Your task to perform on an android device: Do I have any events tomorrow? Image 0: 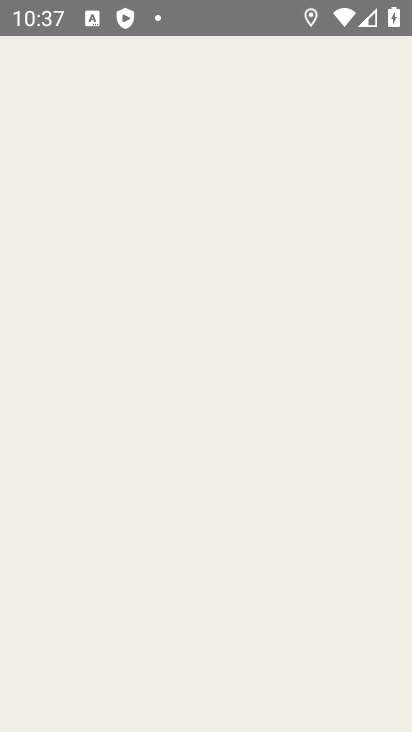
Step 0: click (230, 320)
Your task to perform on an android device: Do I have any events tomorrow? Image 1: 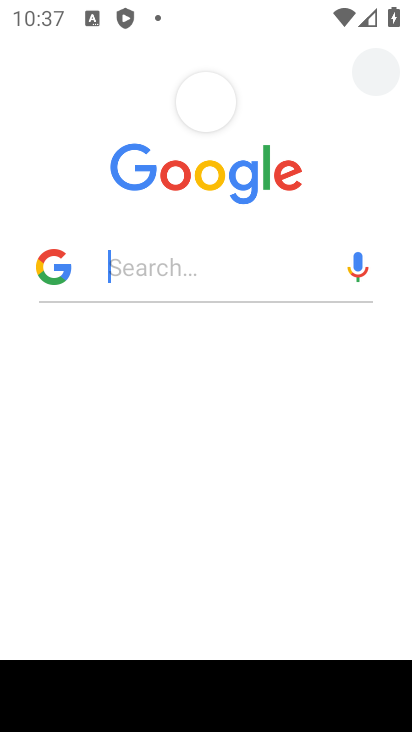
Step 1: press home button
Your task to perform on an android device: Do I have any events tomorrow? Image 2: 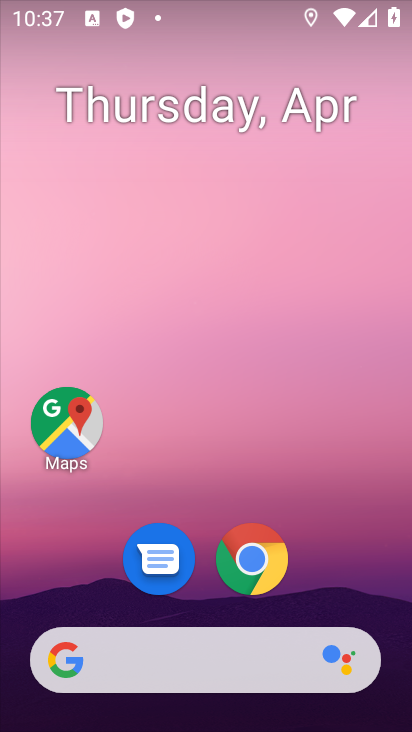
Step 2: drag from (250, 727) to (241, 21)
Your task to perform on an android device: Do I have any events tomorrow? Image 3: 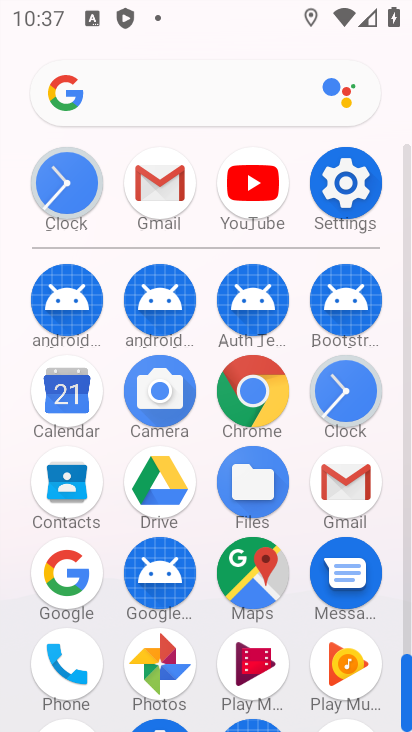
Step 3: click (67, 400)
Your task to perform on an android device: Do I have any events tomorrow? Image 4: 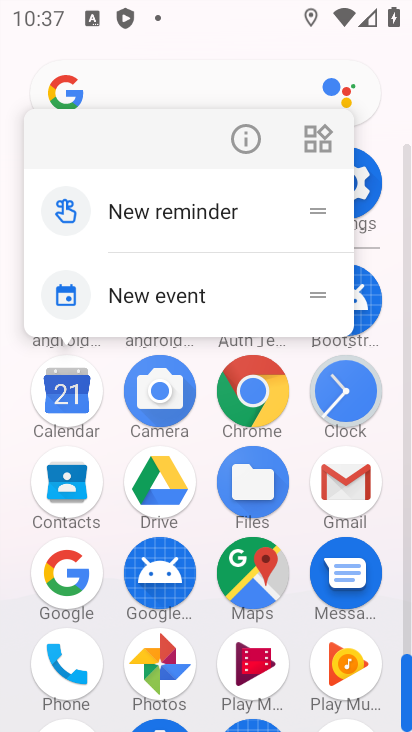
Step 4: click (67, 400)
Your task to perform on an android device: Do I have any events tomorrow? Image 5: 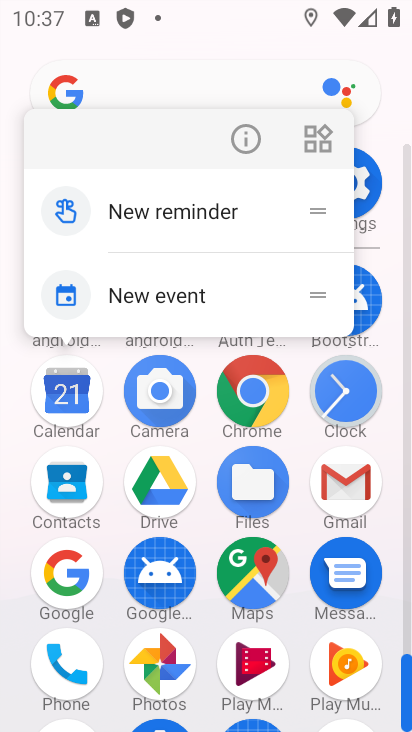
Step 5: click (67, 400)
Your task to perform on an android device: Do I have any events tomorrow? Image 6: 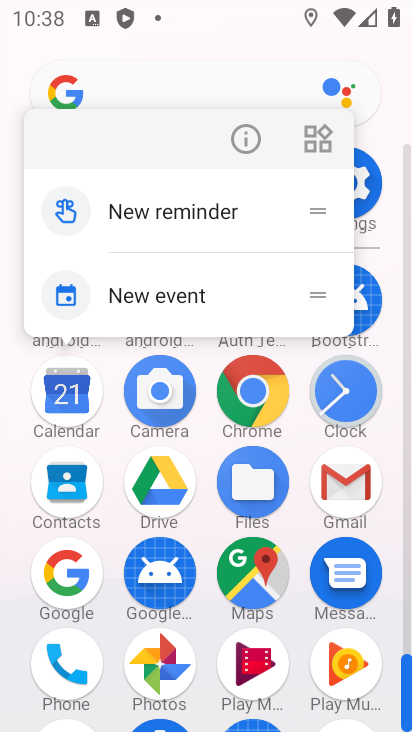
Step 6: click (67, 400)
Your task to perform on an android device: Do I have any events tomorrow? Image 7: 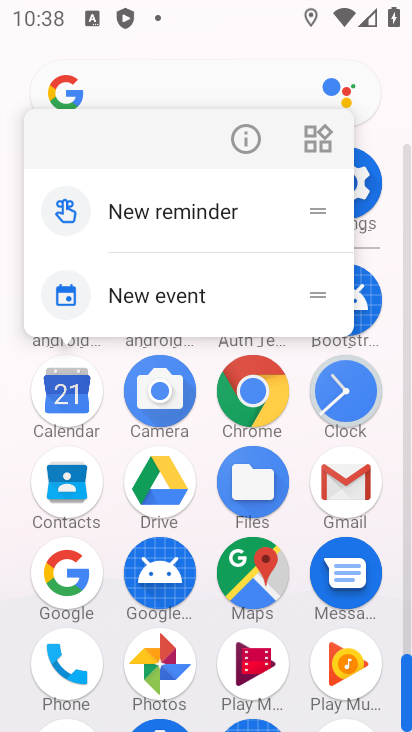
Step 7: click (67, 400)
Your task to perform on an android device: Do I have any events tomorrow? Image 8: 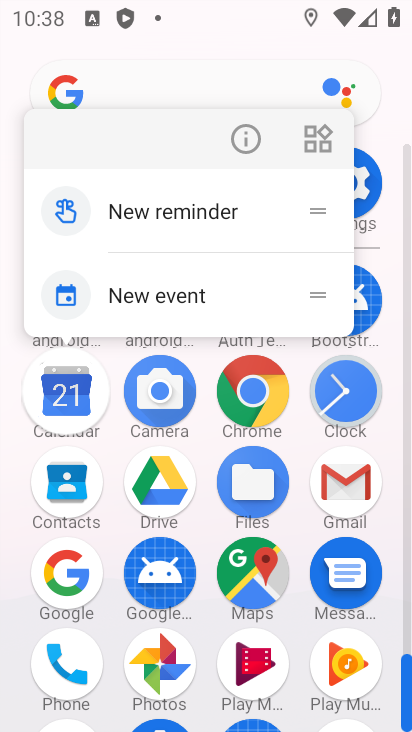
Step 8: click (67, 400)
Your task to perform on an android device: Do I have any events tomorrow? Image 9: 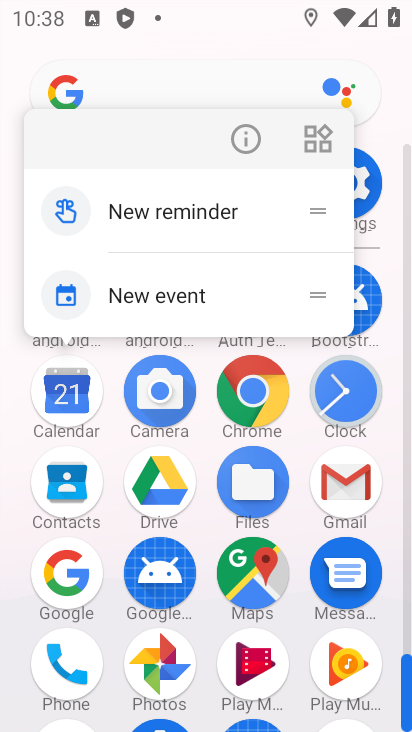
Step 9: click (75, 402)
Your task to perform on an android device: Do I have any events tomorrow? Image 10: 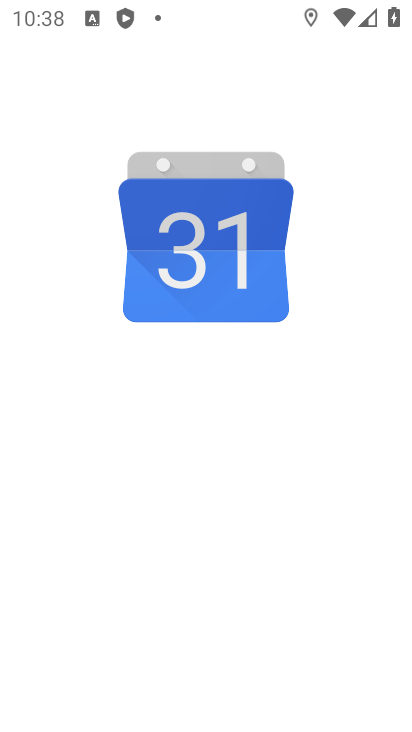
Step 10: click (75, 402)
Your task to perform on an android device: Do I have any events tomorrow? Image 11: 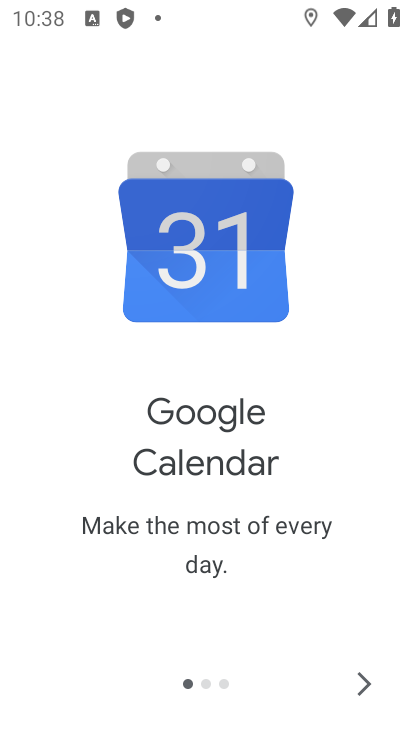
Step 11: click (369, 671)
Your task to perform on an android device: Do I have any events tomorrow? Image 12: 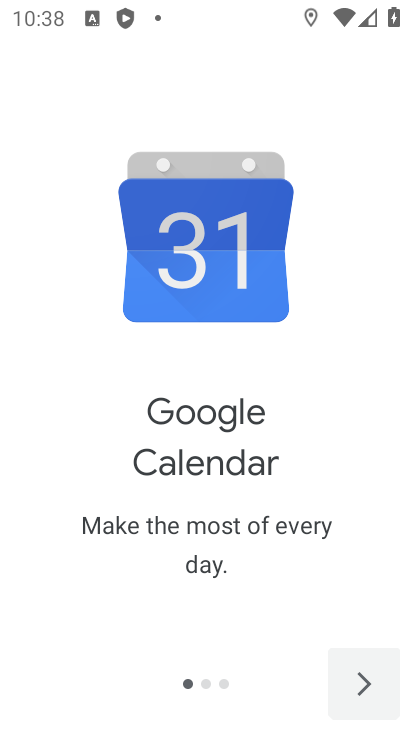
Step 12: click (369, 671)
Your task to perform on an android device: Do I have any events tomorrow? Image 13: 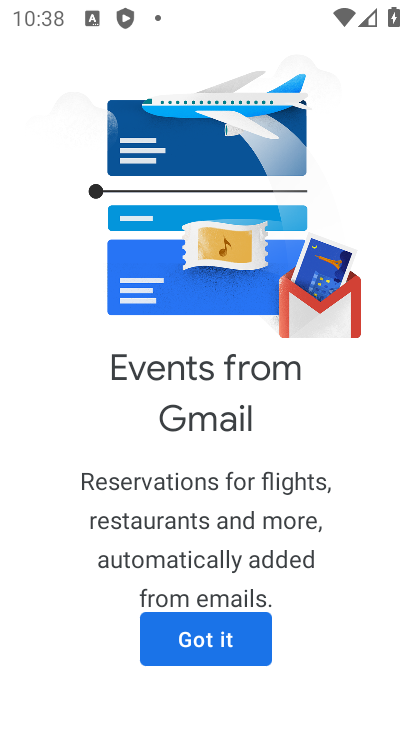
Step 13: click (187, 640)
Your task to perform on an android device: Do I have any events tomorrow? Image 14: 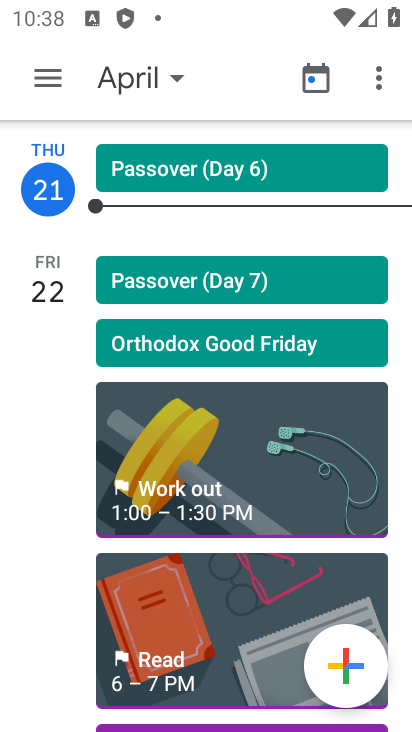
Step 14: task complete